Your task to perform on an android device: Turn on the flashlight Image 0: 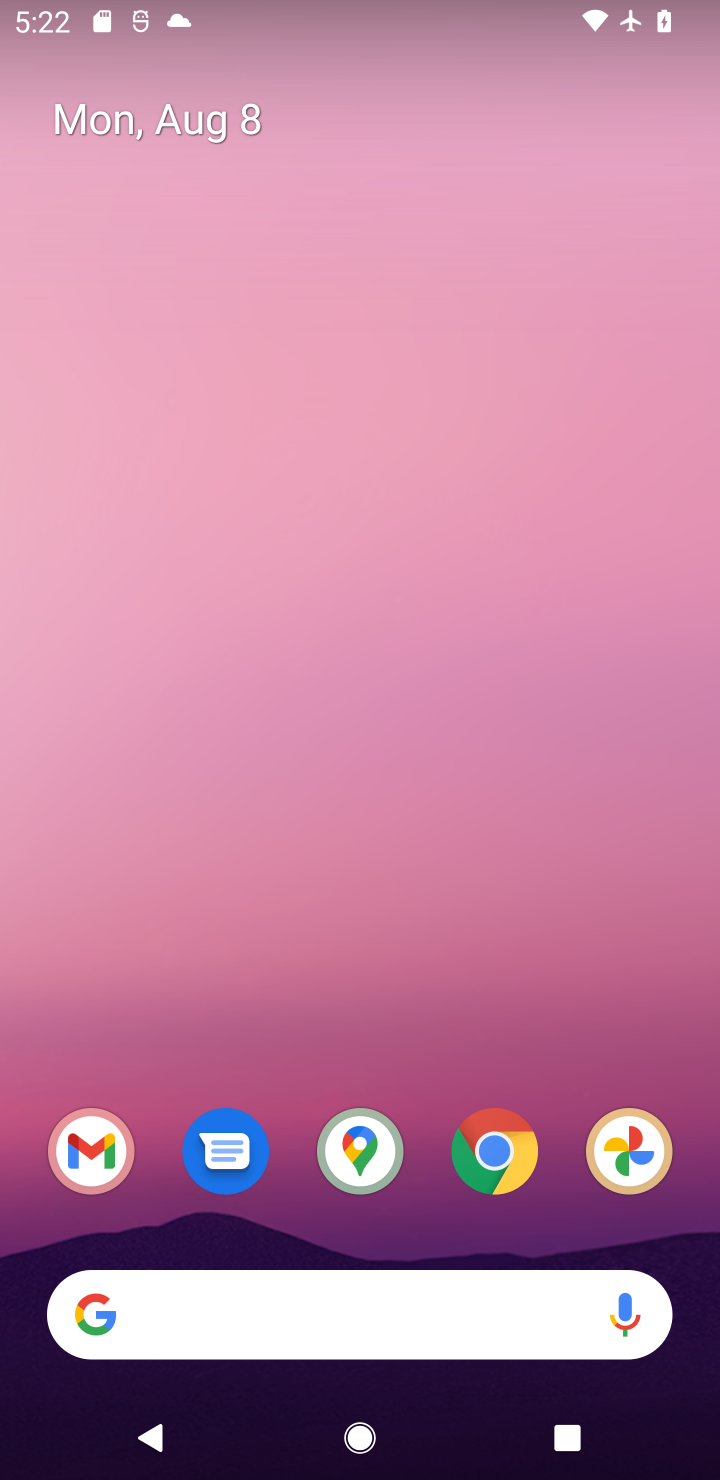
Step 0: drag from (376, 1054) to (376, 311)
Your task to perform on an android device: Turn on the flashlight Image 1: 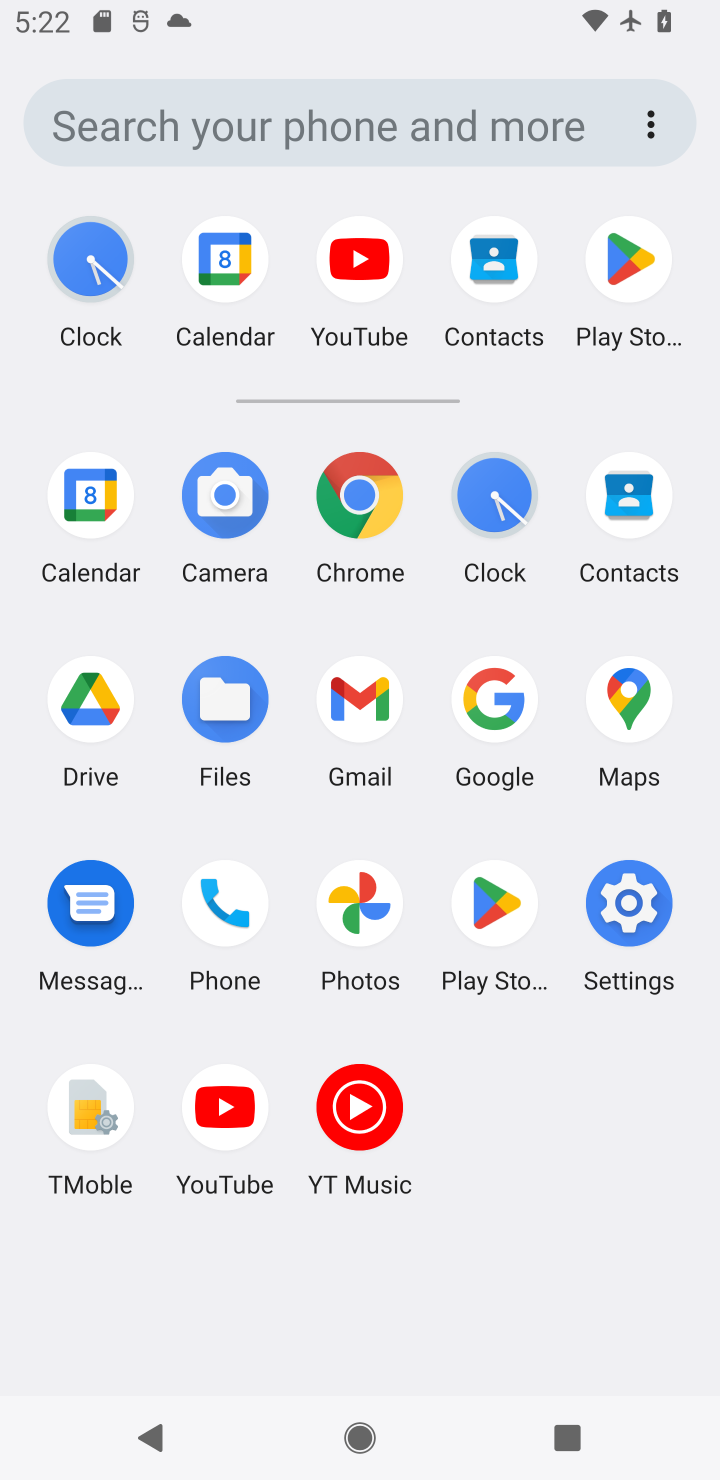
Step 1: click (622, 921)
Your task to perform on an android device: Turn on the flashlight Image 2: 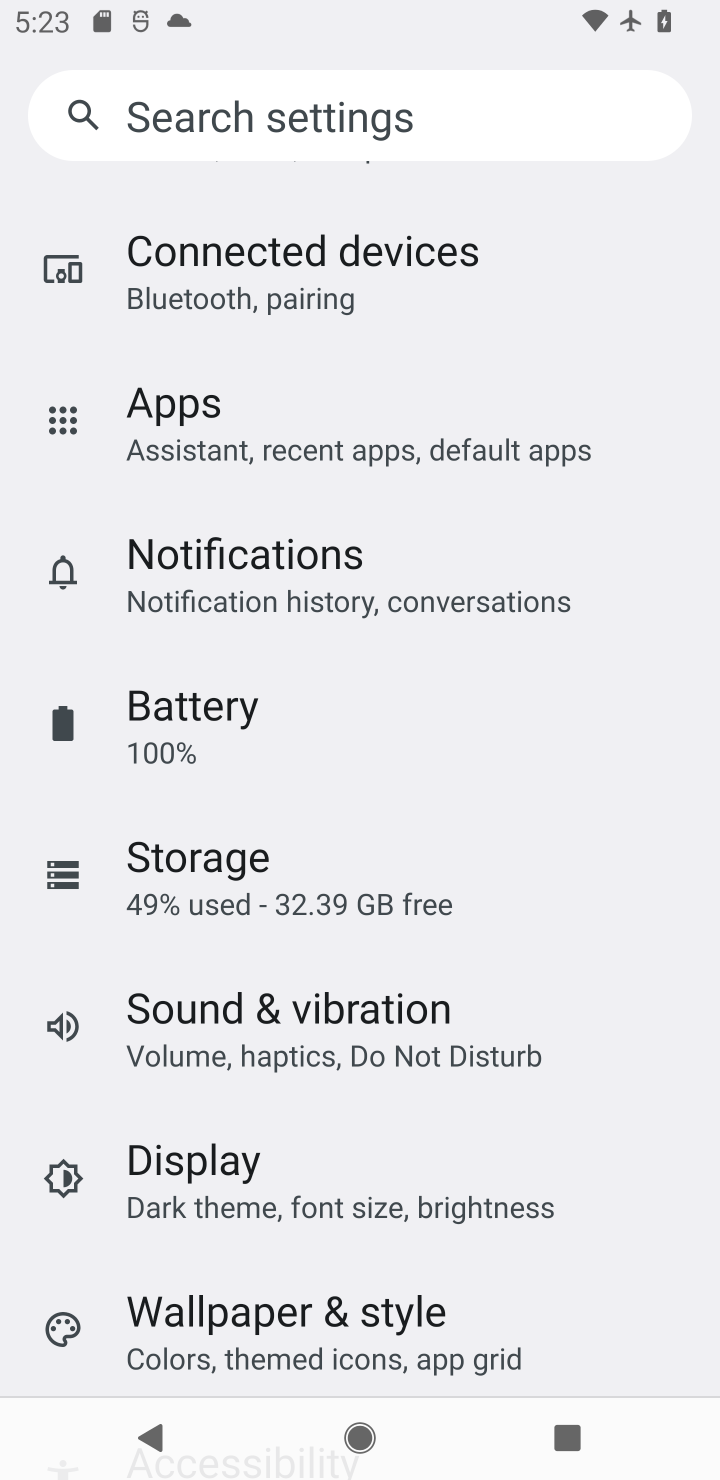
Step 2: task complete